Your task to perform on an android device: Open the web browser Image 0: 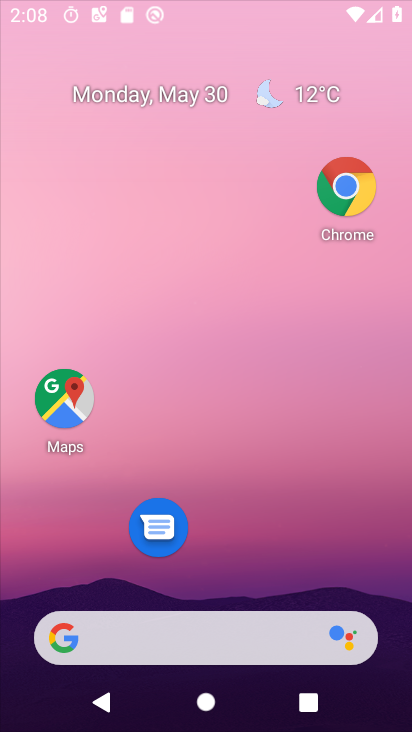
Step 0: drag from (268, 569) to (261, 17)
Your task to perform on an android device: Open the web browser Image 1: 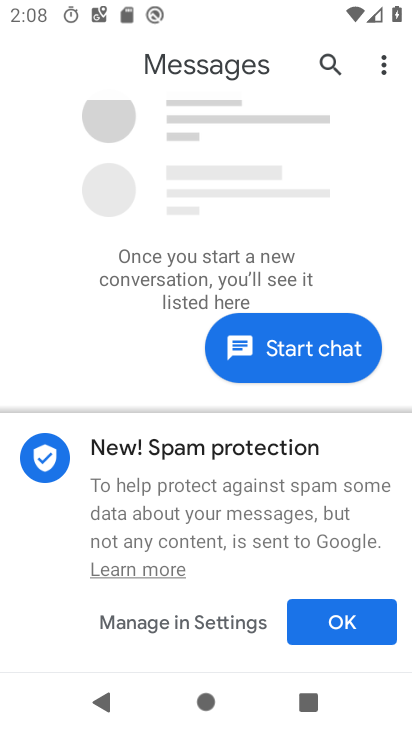
Step 1: press home button
Your task to perform on an android device: Open the web browser Image 2: 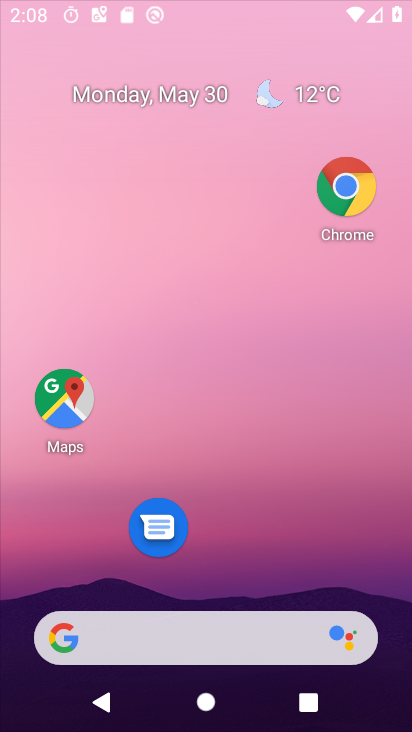
Step 2: drag from (201, 527) to (221, 169)
Your task to perform on an android device: Open the web browser Image 3: 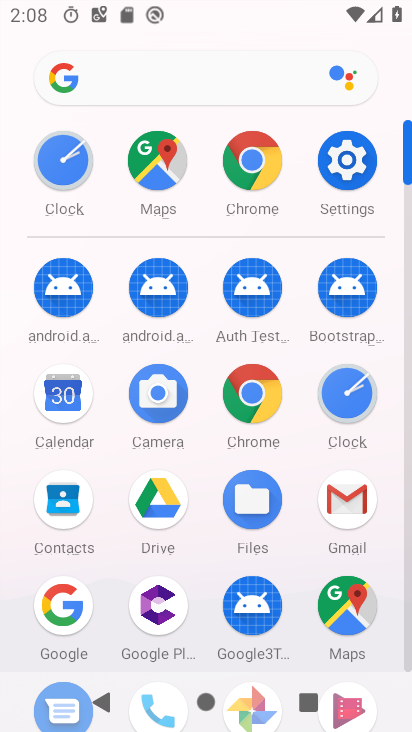
Step 3: click (260, 166)
Your task to perform on an android device: Open the web browser Image 4: 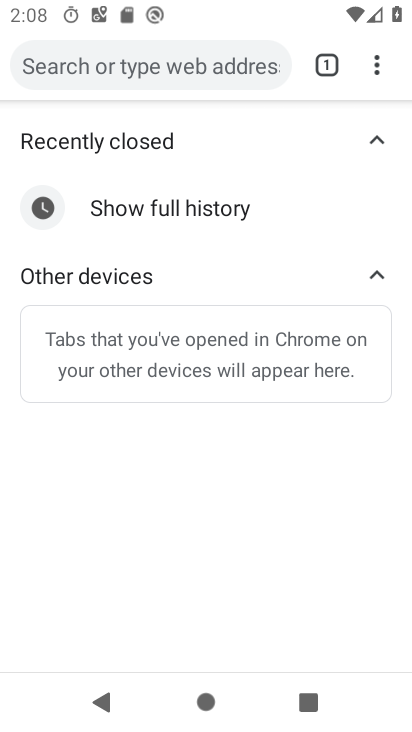
Step 4: task complete